Your task to perform on an android device: turn on improve location accuracy Image 0: 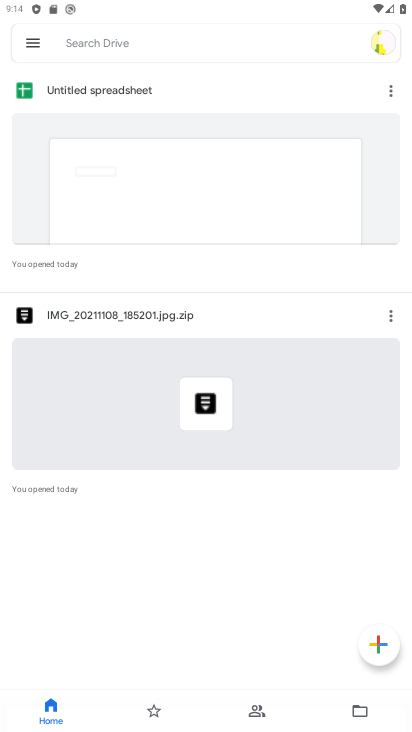
Step 0: press home button
Your task to perform on an android device: turn on improve location accuracy Image 1: 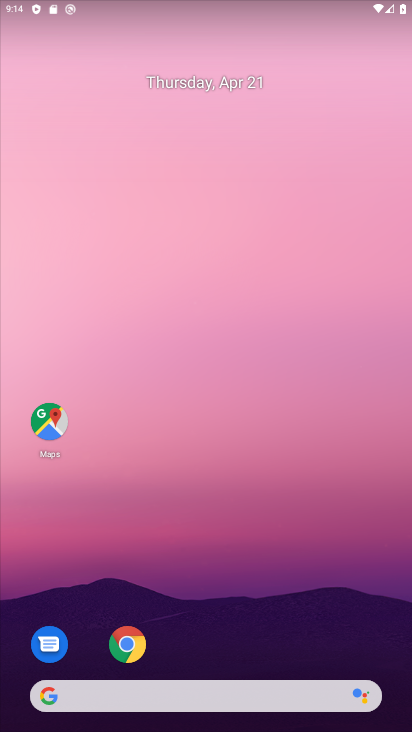
Step 1: drag from (290, 638) to (267, 271)
Your task to perform on an android device: turn on improve location accuracy Image 2: 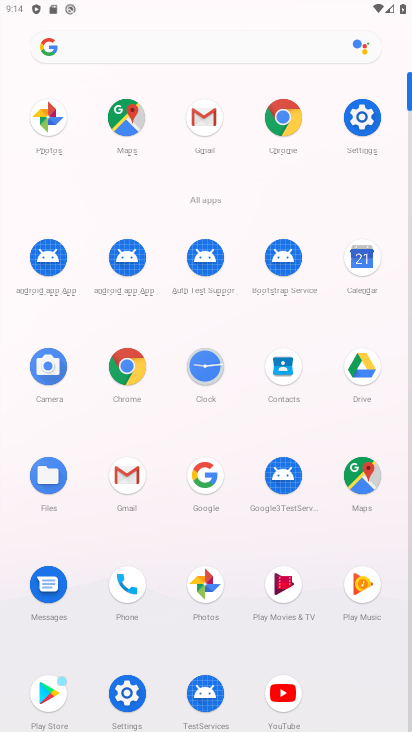
Step 2: click (359, 114)
Your task to perform on an android device: turn on improve location accuracy Image 3: 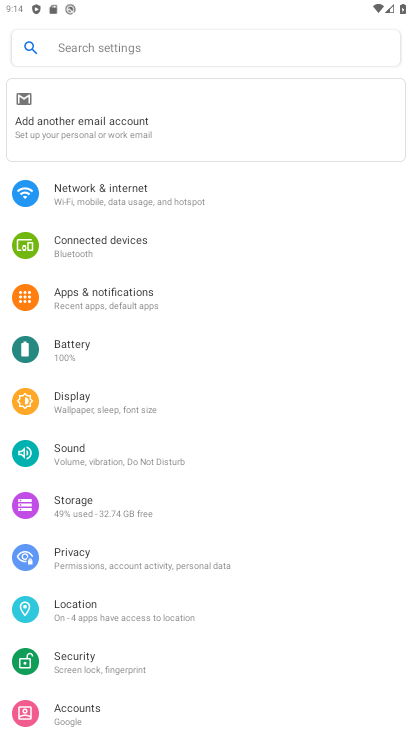
Step 3: click (176, 605)
Your task to perform on an android device: turn on improve location accuracy Image 4: 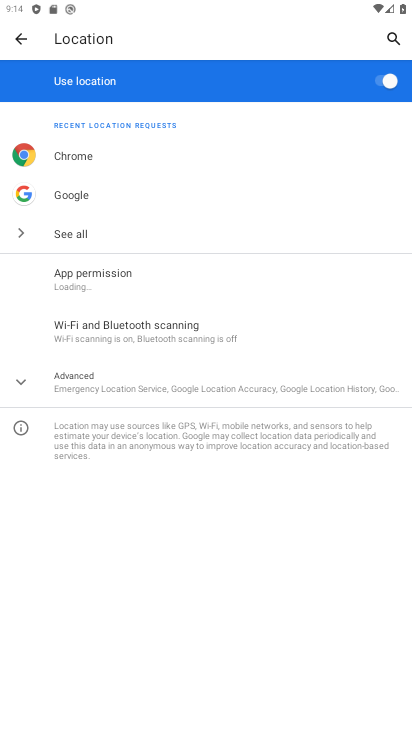
Step 4: click (217, 383)
Your task to perform on an android device: turn on improve location accuracy Image 5: 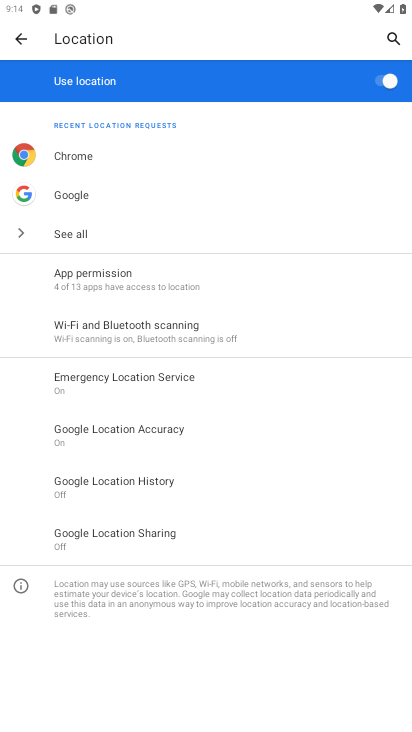
Step 5: click (214, 442)
Your task to perform on an android device: turn on improve location accuracy Image 6: 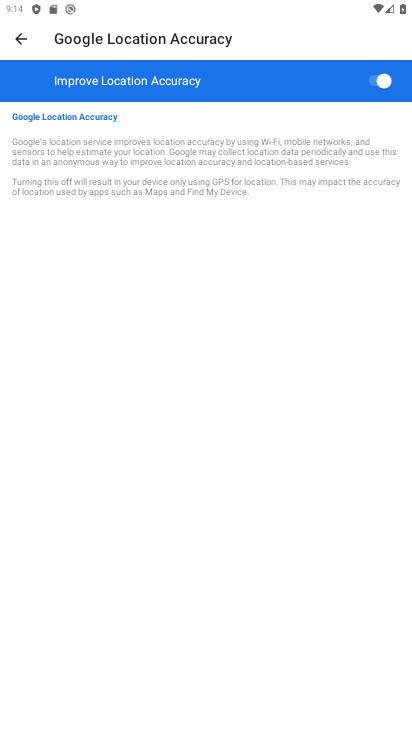
Step 6: task complete